Your task to perform on an android device: Open display settings Image 0: 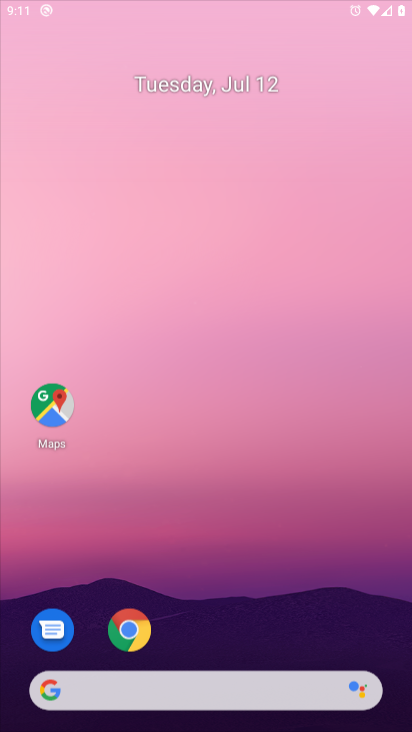
Step 0: press home button
Your task to perform on an android device: Open display settings Image 1: 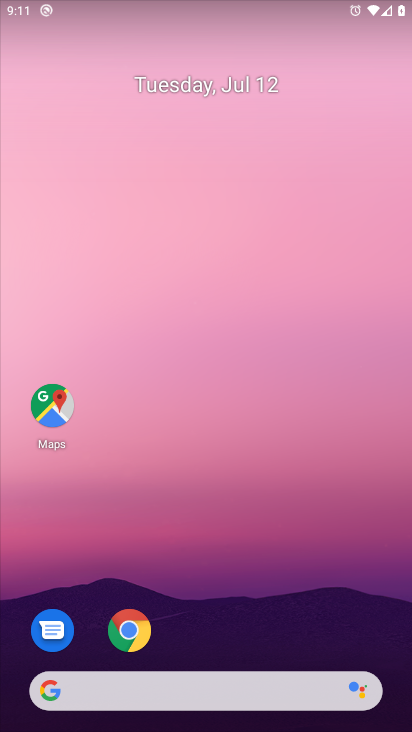
Step 1: drag from (242, 642) to (257, 154)
Your task to perform on an android device: Open display settings Image 2: 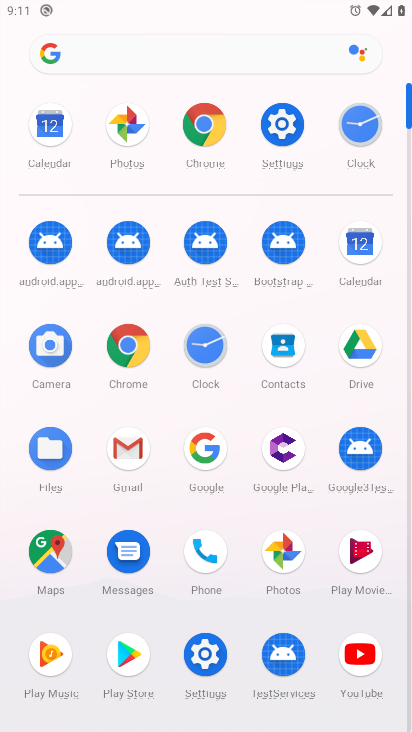
Step 2: click (286, 124)
Your task to perform on an android device: Open display settings Image 3: 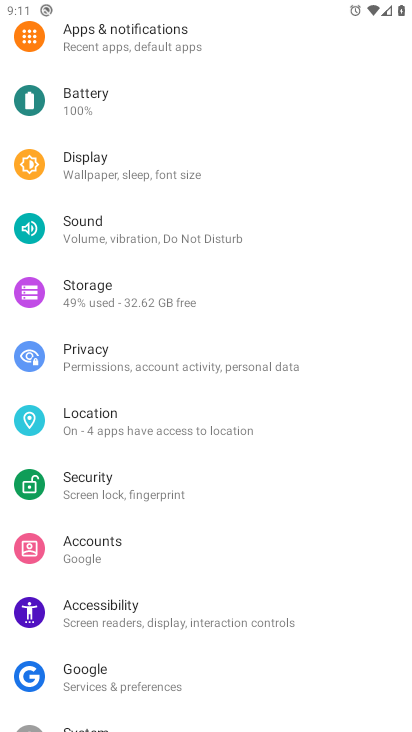
Step 3: click (86, 170)
Your task to perform on an android device: Open display settings Image 4: 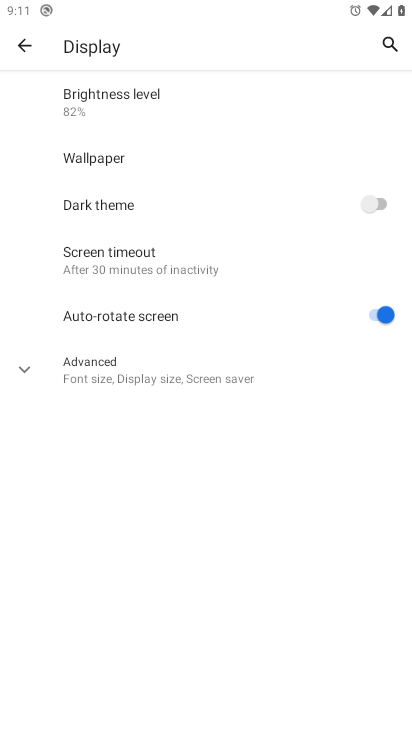
Step 4: task complete